Your task to perform on an android device: Play the last video I watched on Youtube Image 0: 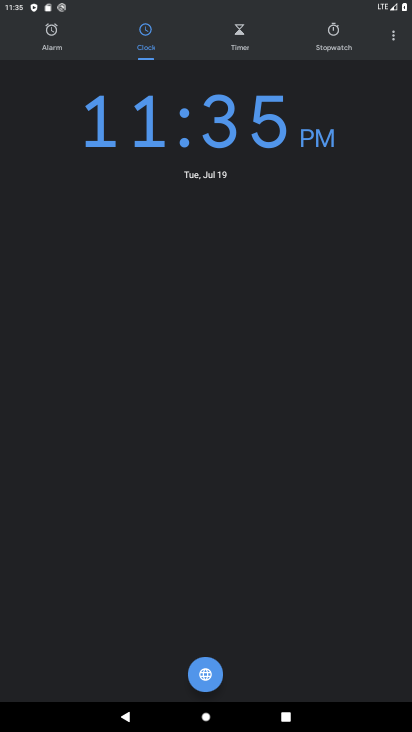
Step 0: press home button
Your task to perform on an android device: Play the last video I watched on Youtube Image 1: 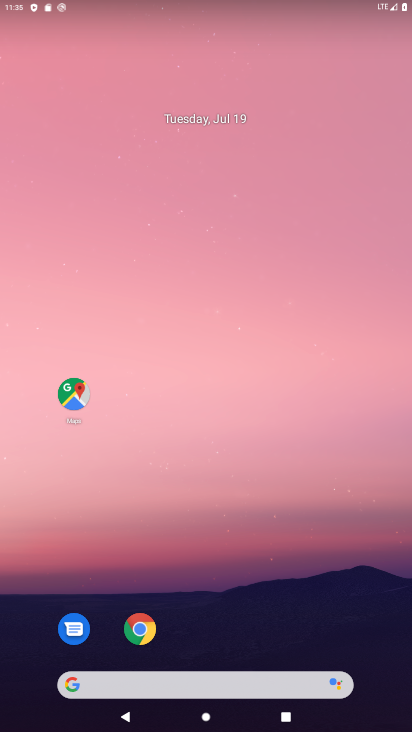
Step 1: click (334, 643)
Your task to perform on an android device: Play the last video I watched on Youtube Image 2: 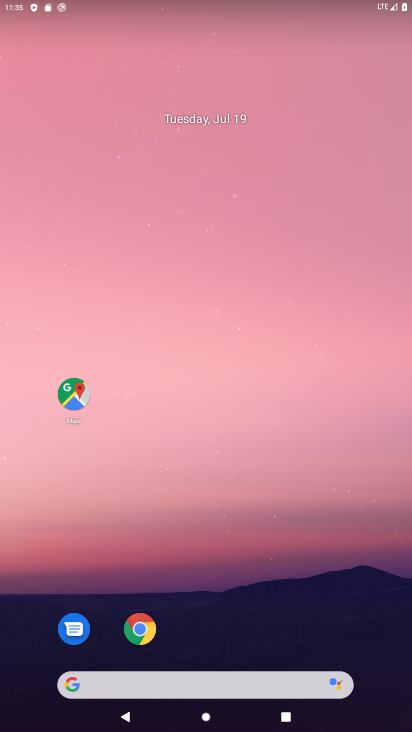
Step 2: drag from (194, 553) to (136, 80)
Your task to perform on an android device: Play the last video I watched on Youtube Image 3: 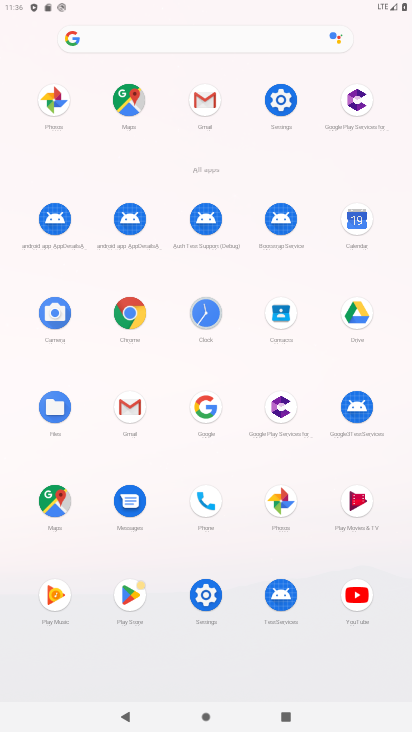
Step 3: click (348, 597)
Your task to perform on an android device: Play the last video I watched on Youtube Image 4: 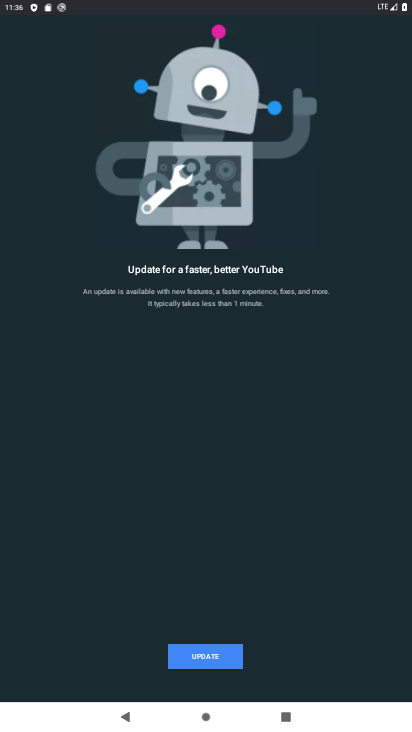
Step 4: click (198, 659)
Your task to perform on an android device: Play the last video I watched on Youtube Image 5: 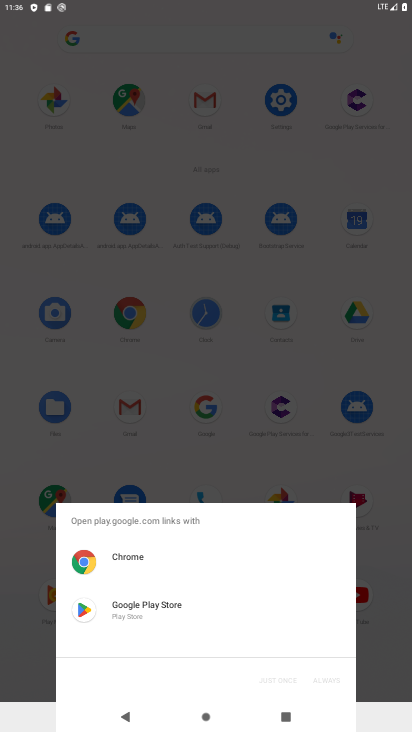
Step 5: click (133, 614)
Your task to perform on an android device: Play the last video I watched on Youtube Image 6: 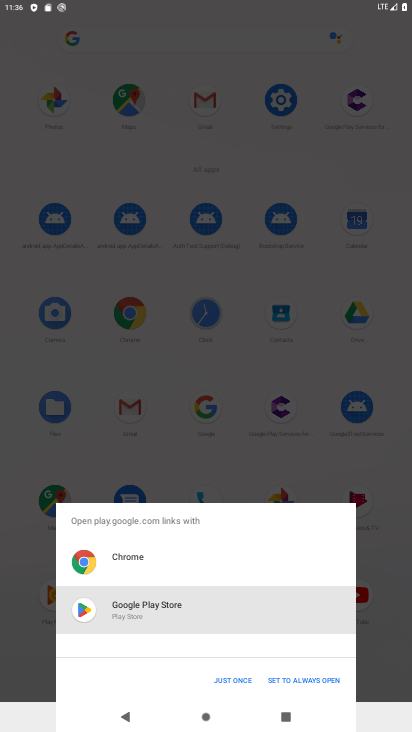
Step 6: click (288, 679)
Your task to perform on an android device: Play the last video I watched on Youtube Image 7: 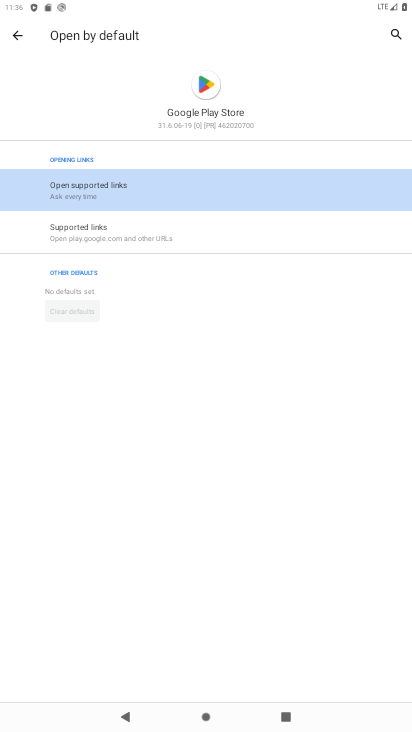
Step 7: click (101, 196)
Your task to perform on an android device: Play the last video I watched on Youtube Image 8: 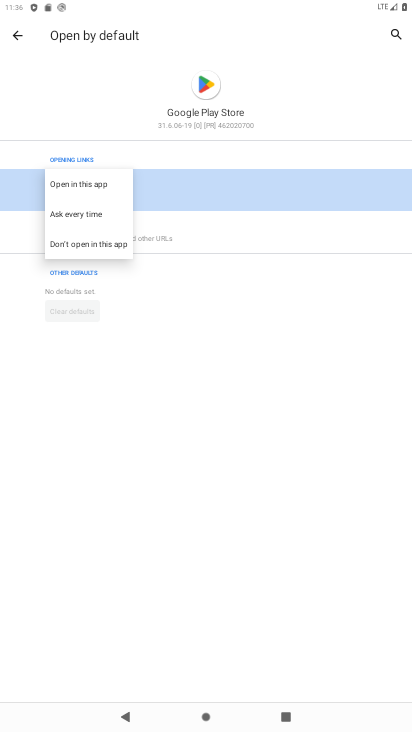
Step 8: click (74, 186)
Your task to perform on an android device: Play the last video I watched on Youtube Image 9: 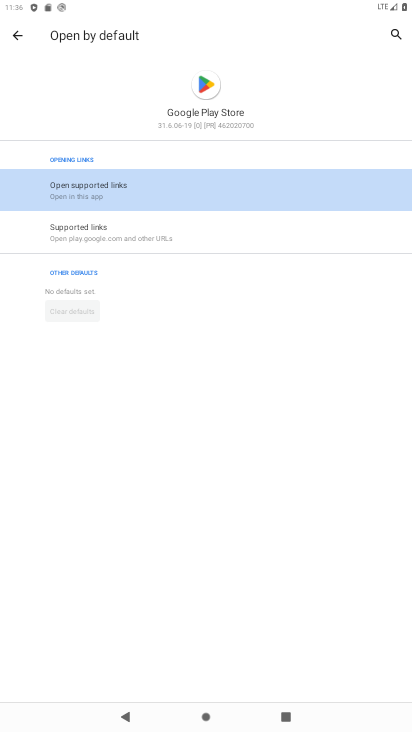
Step 9: click (11, 34)
Your task to perform on an android device: Play the last video I watched on Youtube Image 10: 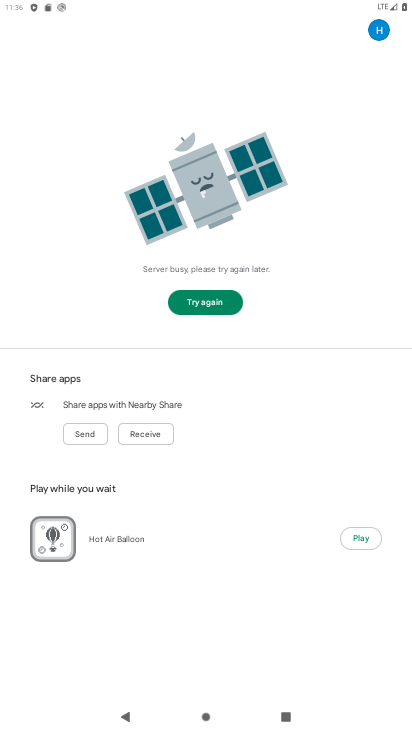
Step 10: task complete